Your task to perform on an android device: toggle airplane mode Image 0: 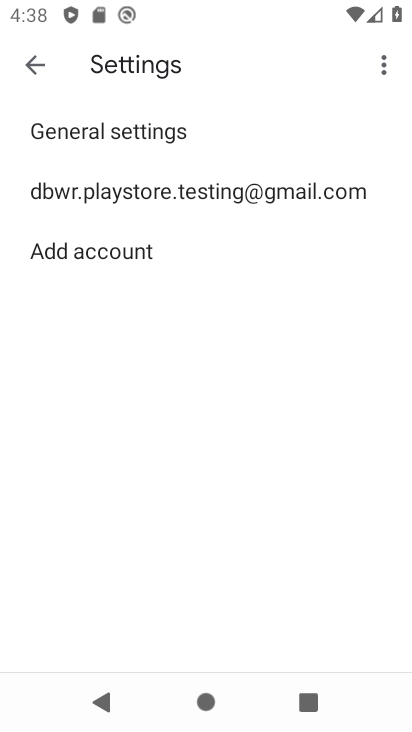
Step 0: press home button
Your task to perform on an android device: toggle airplane mode Image 1: 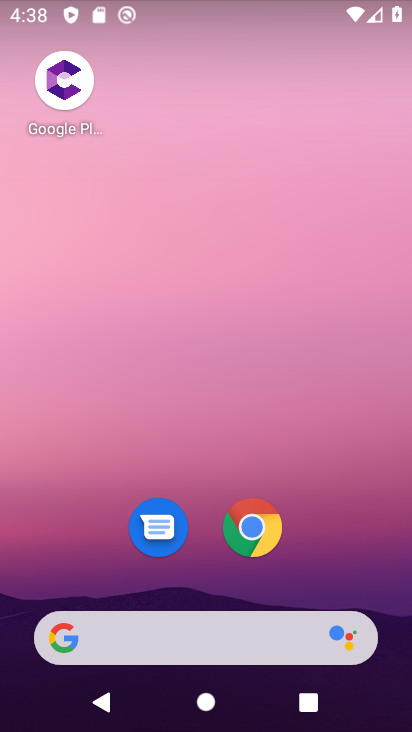
Step 1: drag from (106, 527) to (136, 176)
Your task to perform on an android device: toggle airplane mode Image 2: 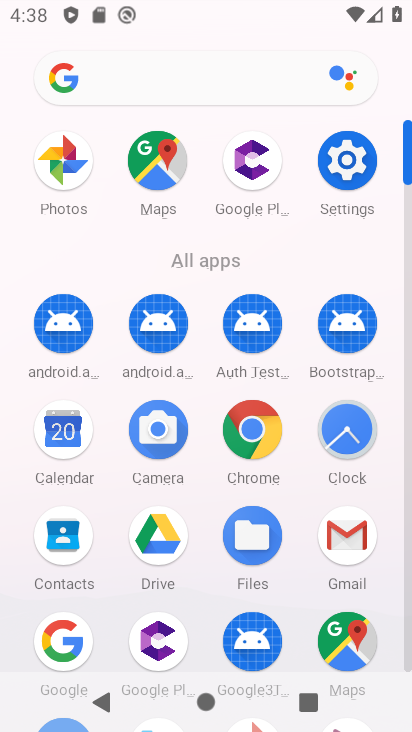
Step 2: drag from (166, 490) to (186, 407)
Your task to perform on an android device: toggle airplane mode Image 3: 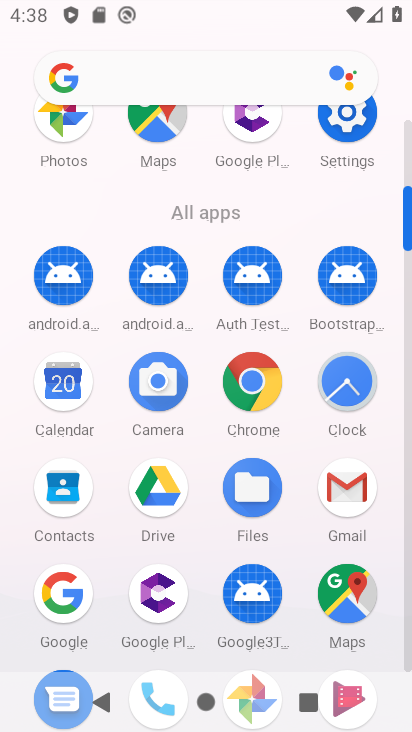
Step 3: click (339, 133)
Your task to perform on an android device: toggle airplane mode Image 4: 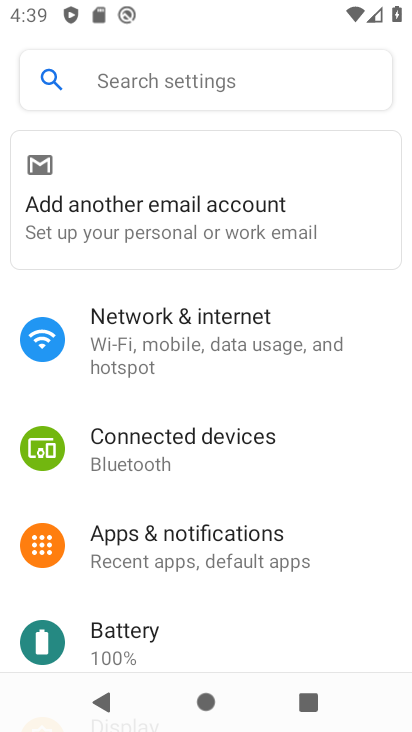
Step 4: drag from (176, 496) to (153, 367)
Your task to perform on an android device: toggle airplane mode Image 5: 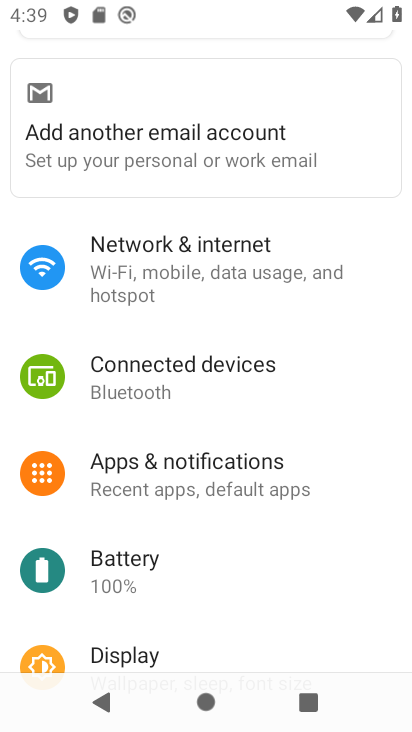
Step 5: click (126, 287)
Your task to perform on an android device: toggle airplane mode Image 6: 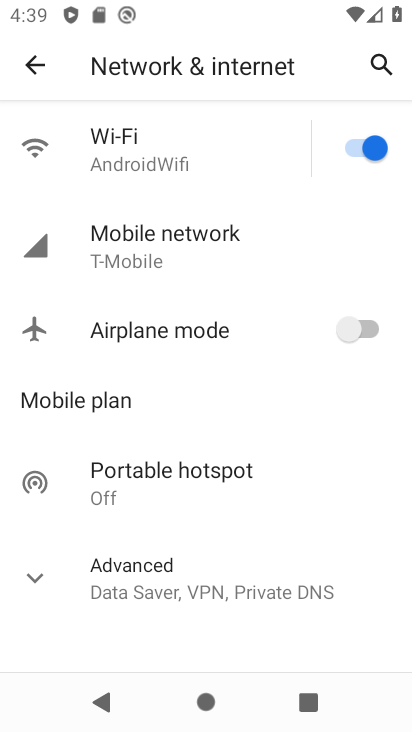
Step 6: click (381, 323)
Your task to perform on an android device: toggle airplane mode Image 7: 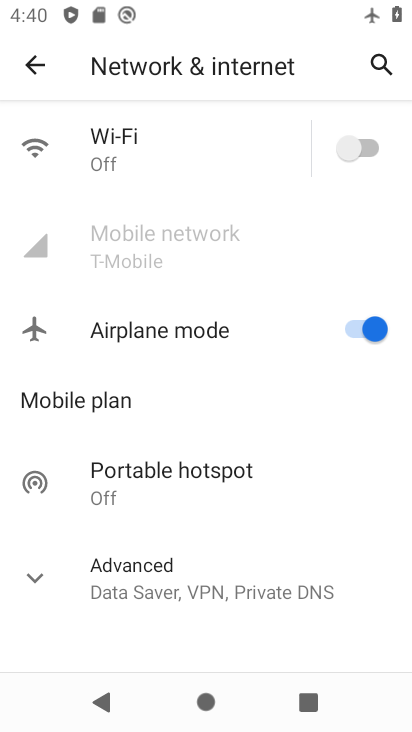
Step 7: task complete